Your task to perform on an android device: open app "Google Docs" (install if not already installed) Image 0: 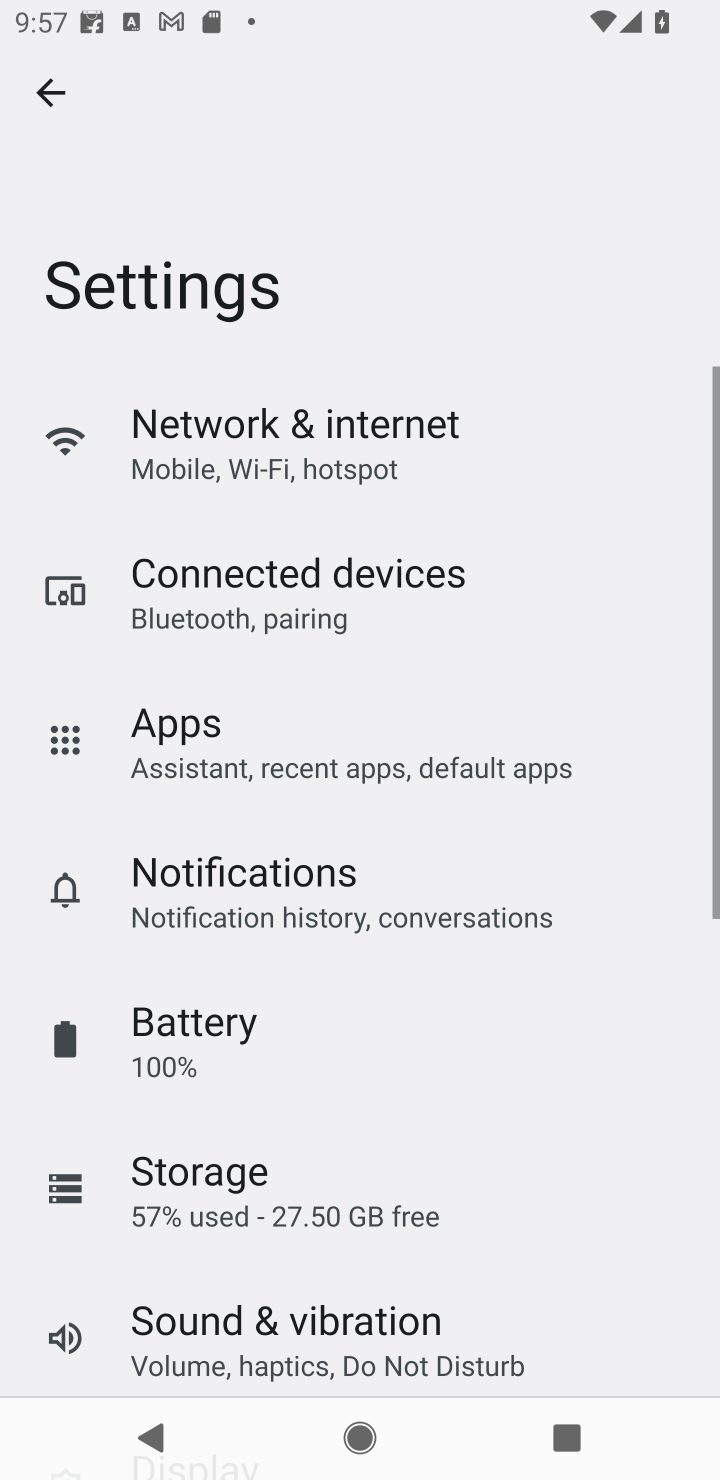
Step 0: press home button
Your task to perform on an android device: open app "Google Docs" (install if not already installed) Image 1: 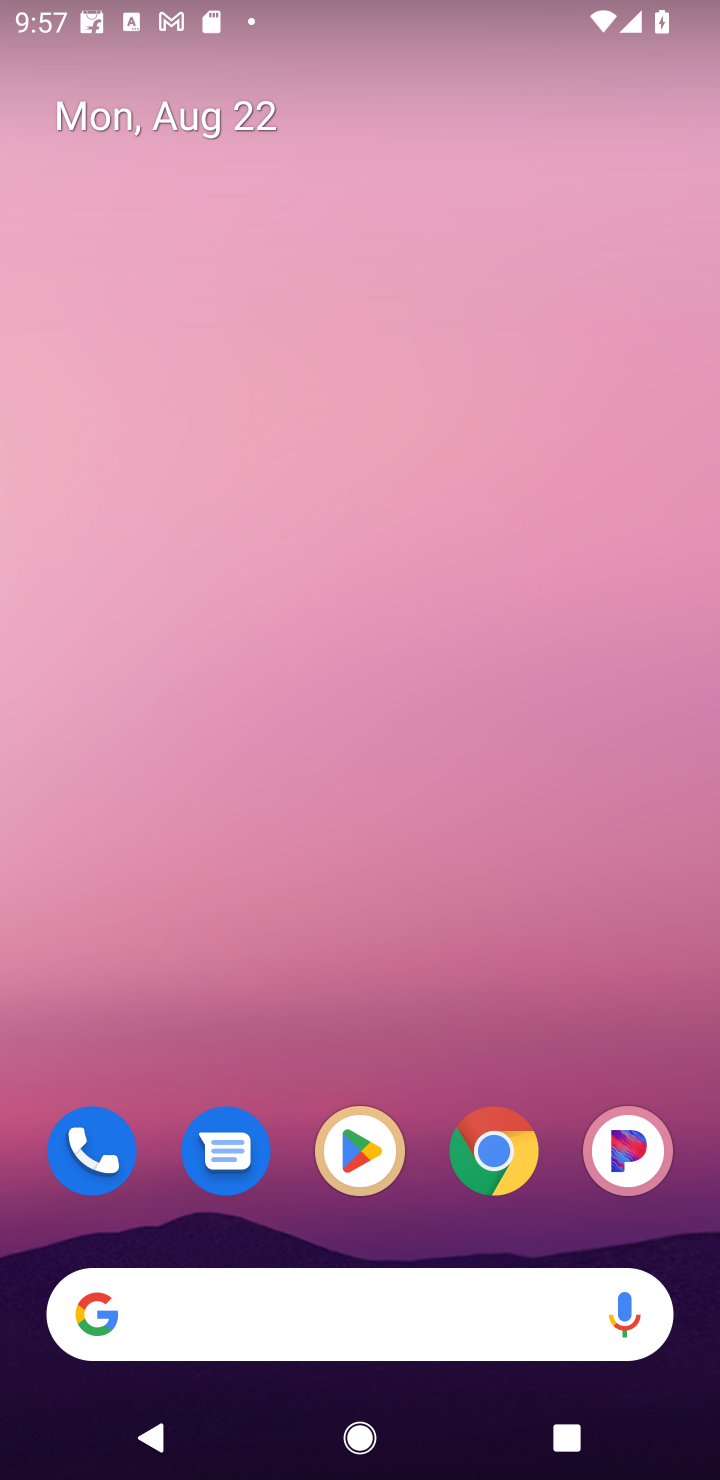
Step 1: click (368, 1153)
Your task to perform on an android device: open app "Google Docs" (install if not already installed) Image 2: 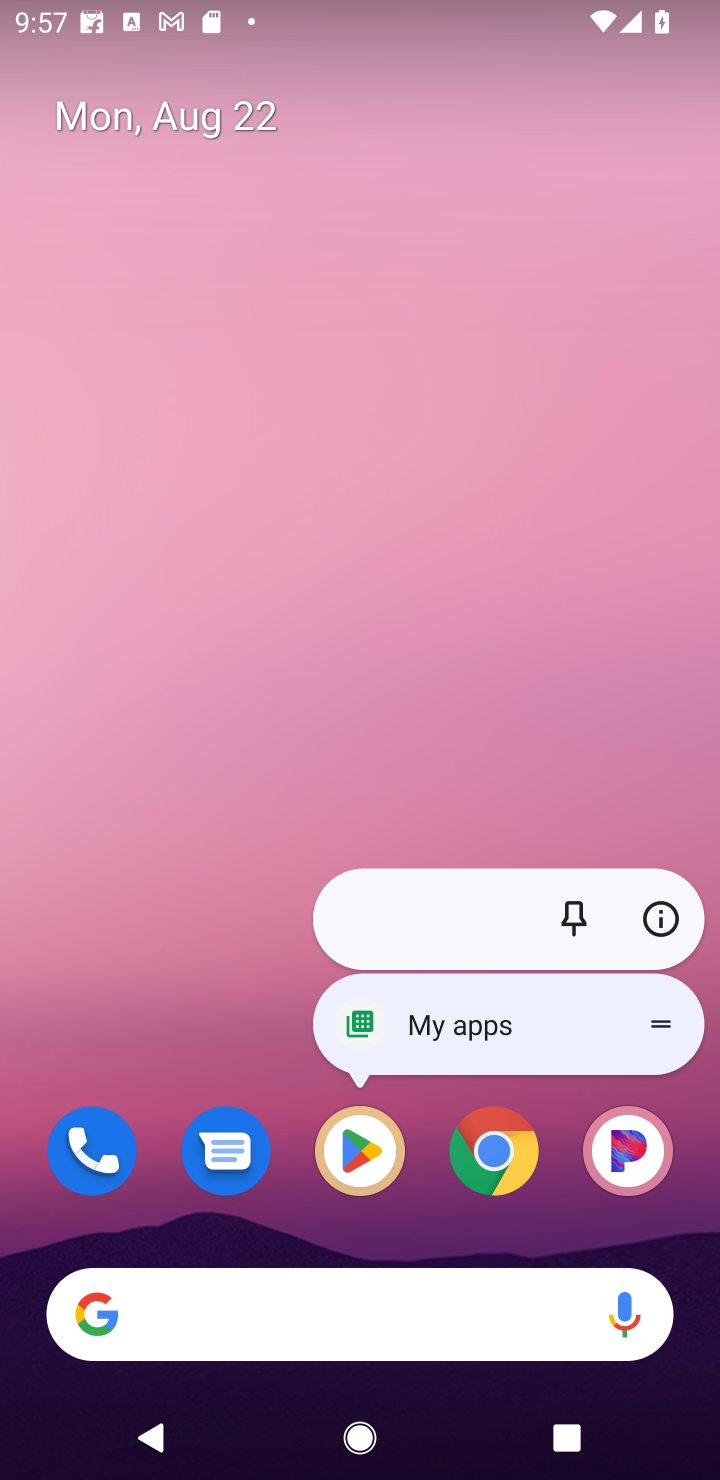
Step 2: click (368, 1159)
Your task to perform on an android device: open app "Google Docs" (install if not already installed) Image 3: 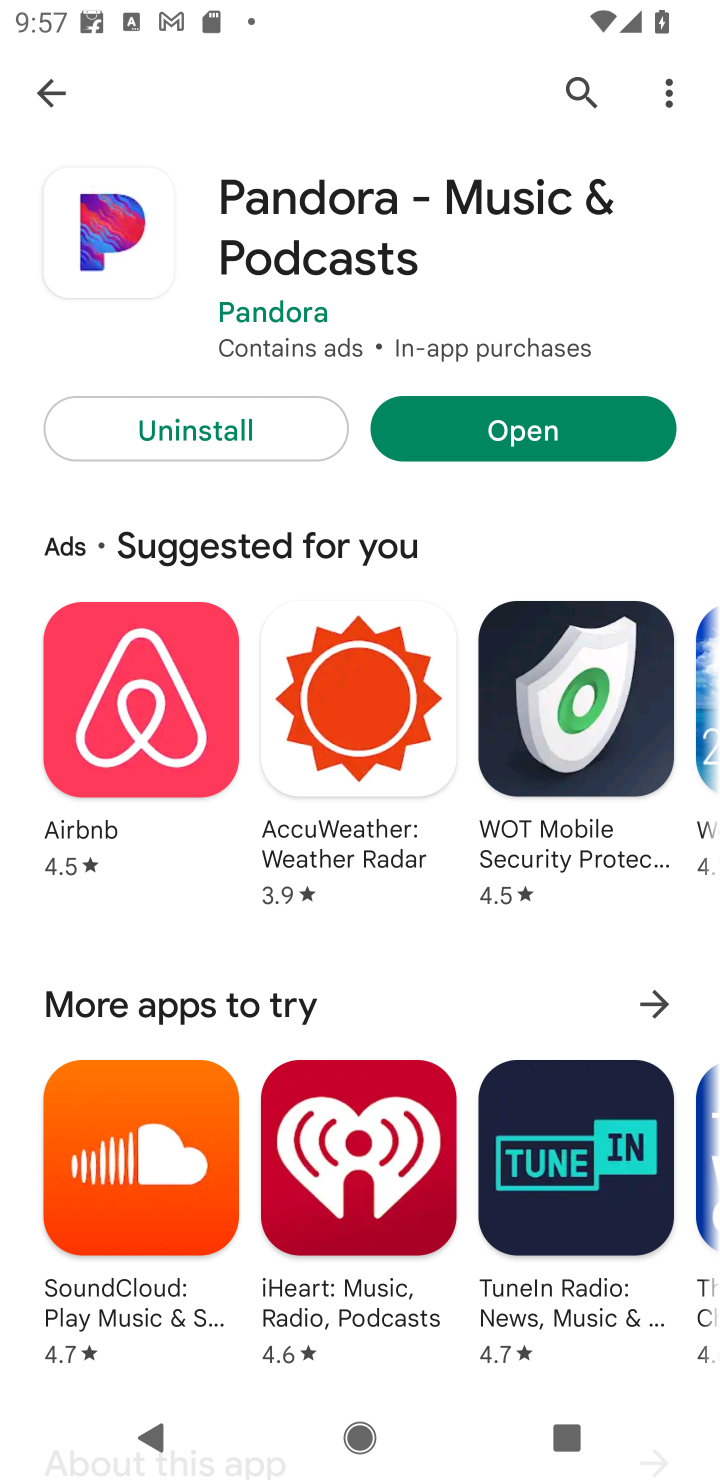
Step 3: click (578, 81)
Your task to perform on an android device: open app "Google Docs" (install if not already installed) Image 4: 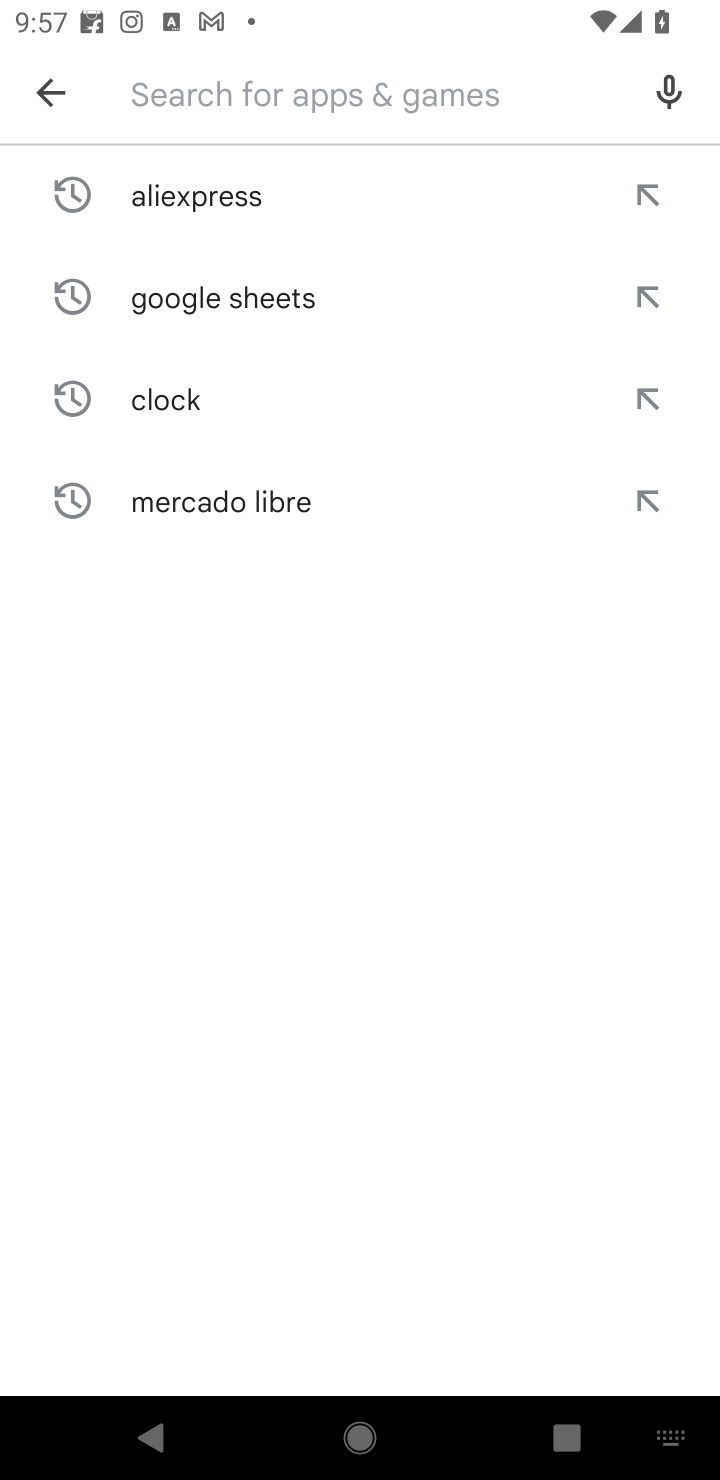
Step 4: type "Google Docs"
Your task to perform on an android device: open app "Google Docs" (install if not already installed) Image 5: 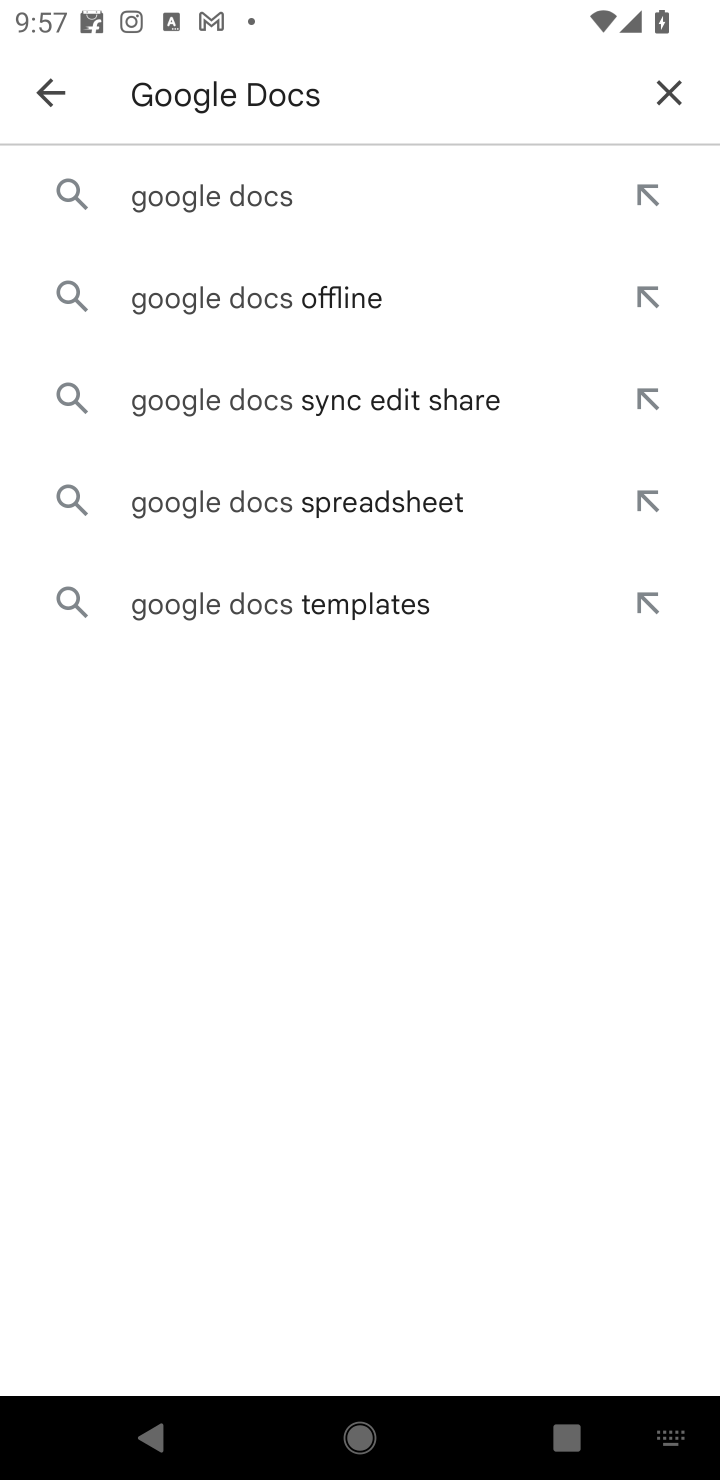
Step 5: click (274, 188)
Your task to perform on an android device: open app "Google Docs" (install if not already installed) Image 6: 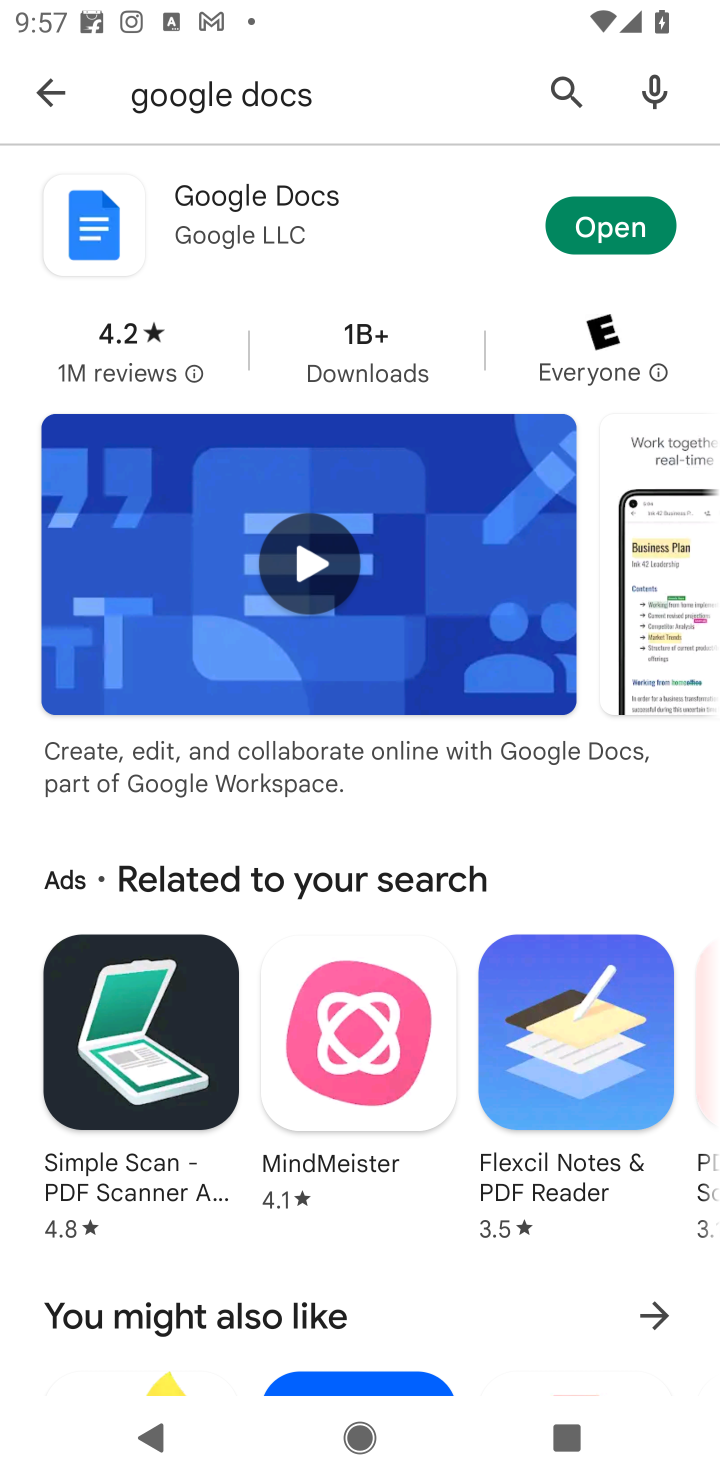
Step 6: click (605, 244)
Your task to perform on an android device: open app "Google Docs" (install if not already installed) Image 7: 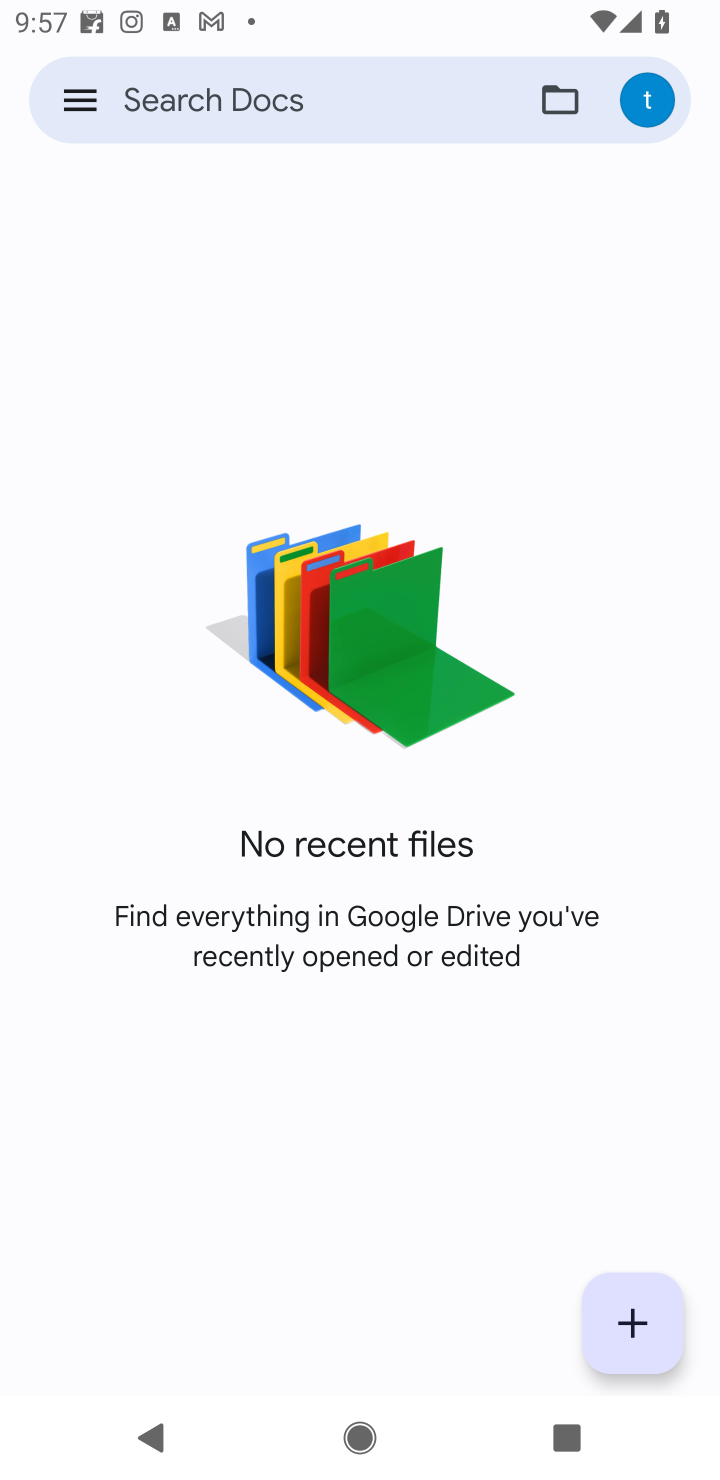
Step 7: task complete